Your task to perform on an android device: turn on bluetooth scan Image 0: 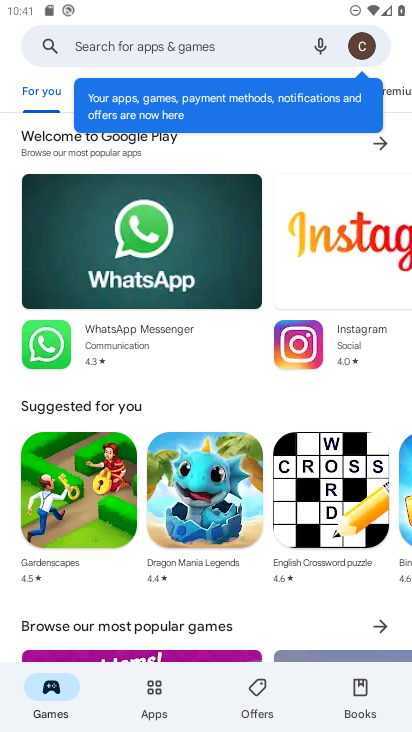
Step 0: press home button
Your task to perform on an android device: turn on bluetooth scan Image 1: 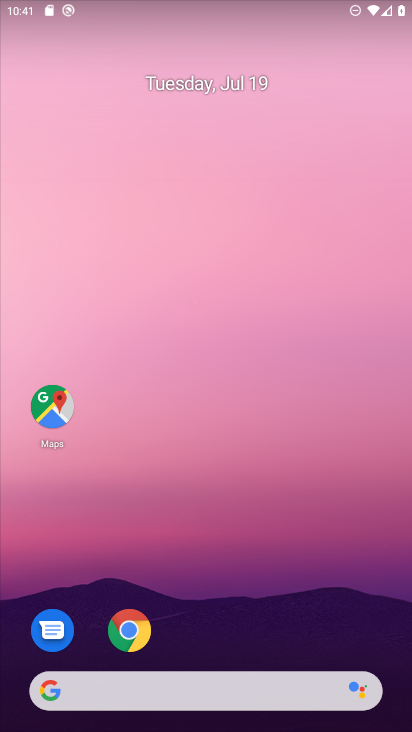
Step 1: drag from (196, 639) to (145, 178)
Your task to perform on an android device: turn on bluetooth scan Image 2: 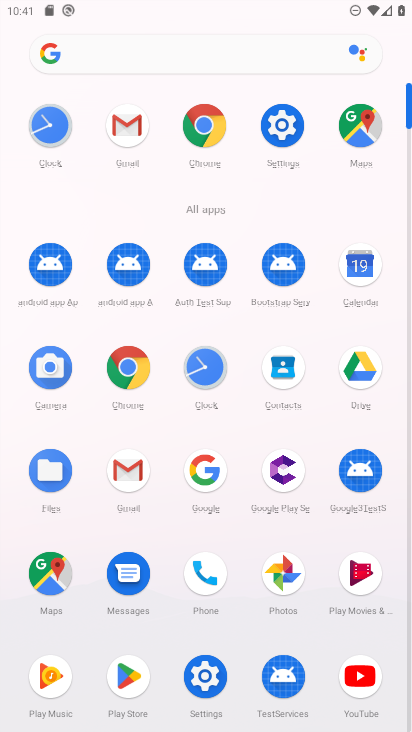
Step 2: click (259, 137)
Your task to perform on an android device: turn on bluetooth scan Image 3: 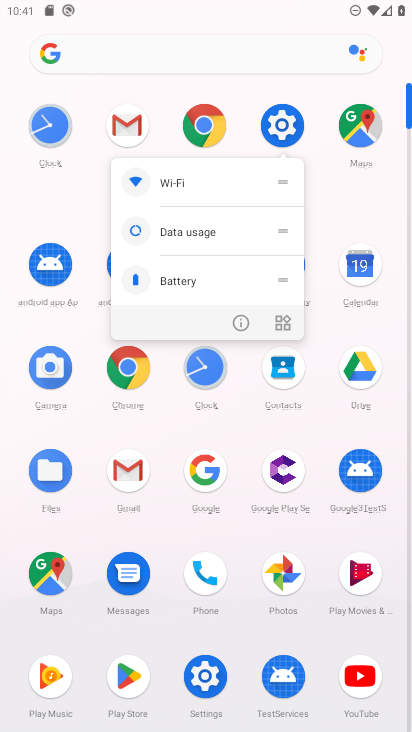
Step 3: click (288, 109)
Your task to perform on an android device: turn on bluetooth scan Image 4: 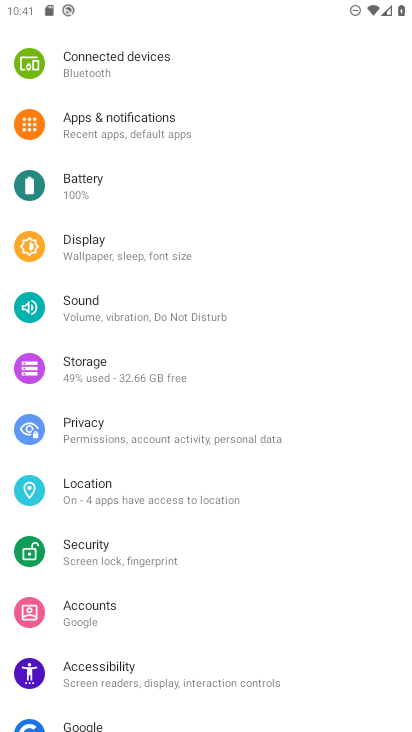
Step 4: click (132, 498)
Your task to perform on an android device: turn on bluetooth scan Image 5: 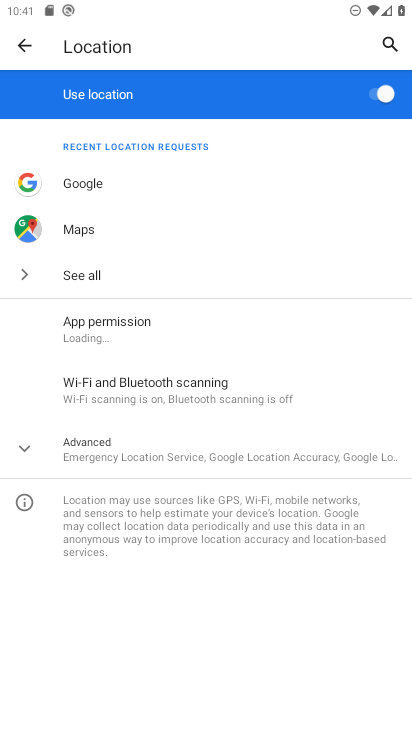
Step 5: click (153, 391)
Your task to perform on an android device: turn on bluetooth scan Image 6: 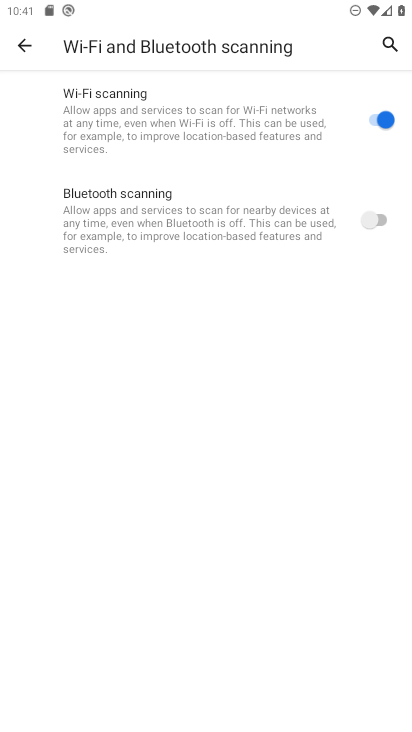
Step 6: click (382, 226)
Your task to perform on an android device: turn on bluetooth scan Image 7: 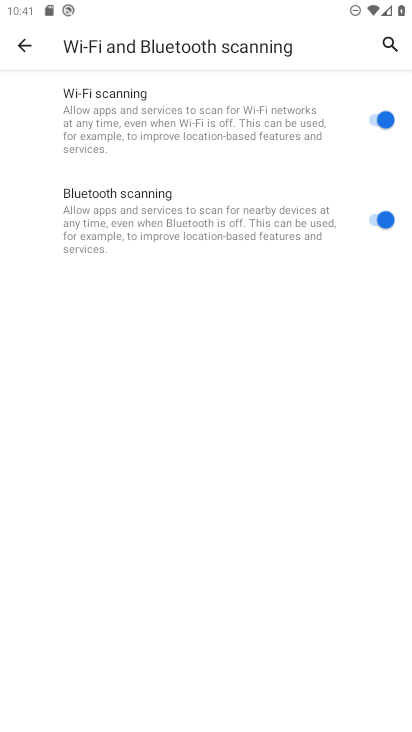
Step 7: task complete